Your task to perform on an android device: Open the calendar and show me this week's events Image 0: 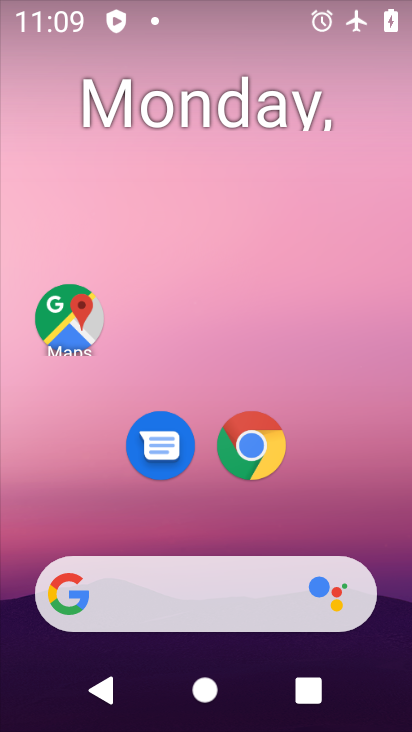
Step 0: drag from (328, 529) to (80, 103)
Your task to perform on an android device: Open the calendar and show me this week's events Image 1: 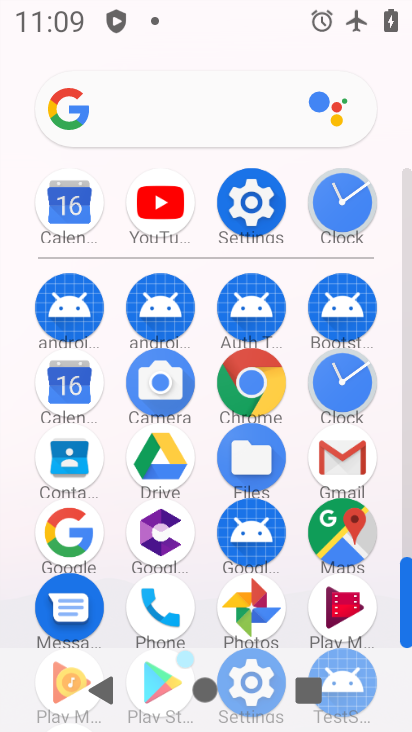
Step 1: click (75, 211)
Your task to perform on an android device: Open the calendar and show me this week's events Image 2: 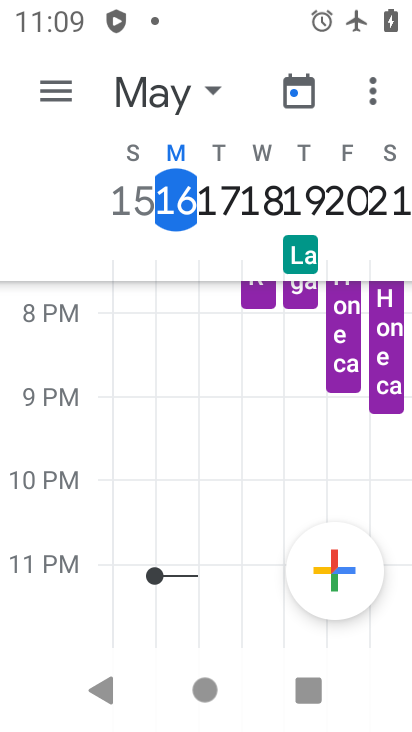
Step 2: task complete